Your task to perform on an android device: change text size in settings app Image 0: 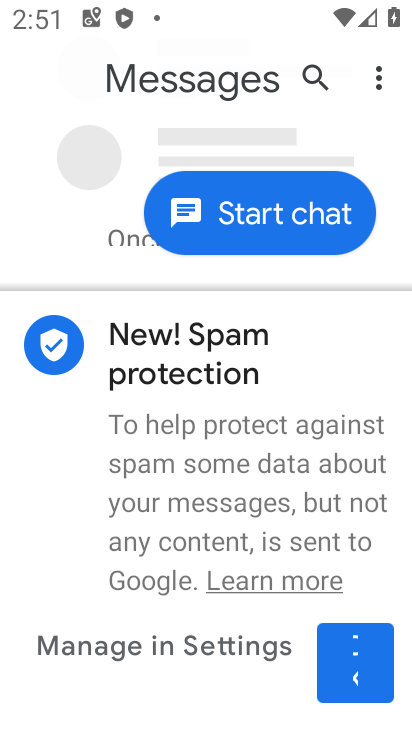
Step 0: press home button
Your task to perform on an android device: change text size in settings app Image 1: 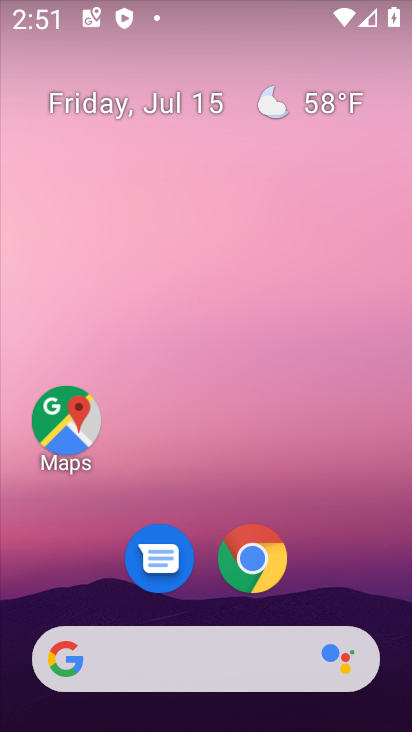
Step 1: drag from (371, 567) to (373, 70)
Your task to perform on an android device: change text size in settings app Image 2: 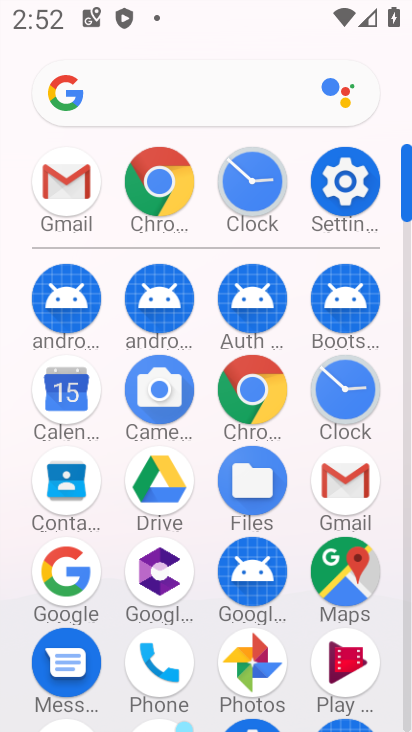
Step 2: click (351, 198)
Your task to perform on an android device: change text size in settings app Image 3: 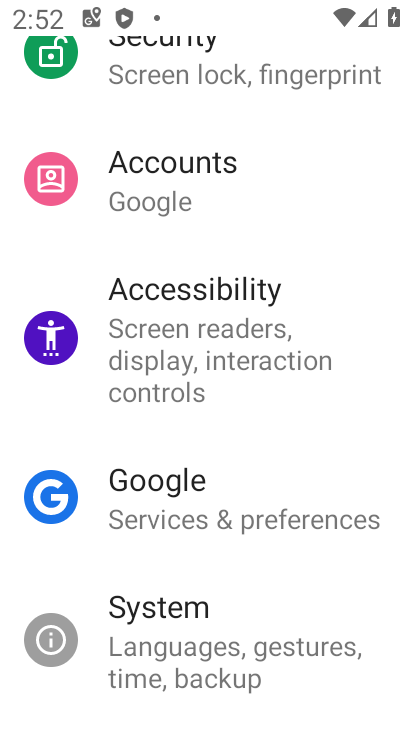
Step 3: drag from (351, 198) to (364, 246)
Your task to perform on an android device: change text size in settings app Image 4: 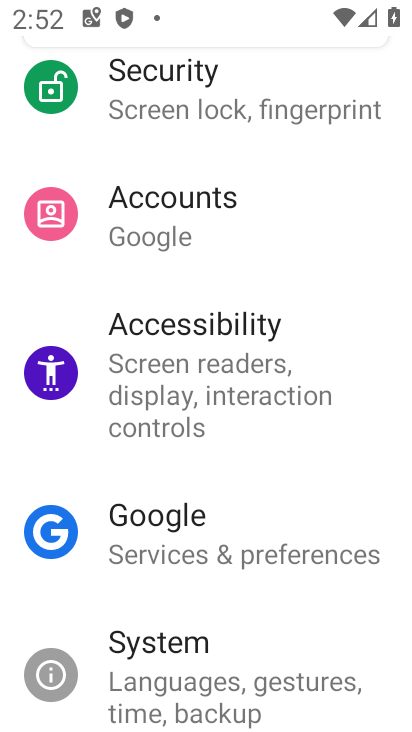
Step 4: drag from (370, 196) to (376, 274)
Your task to perform on an android device: change text size in settings app Image 5: 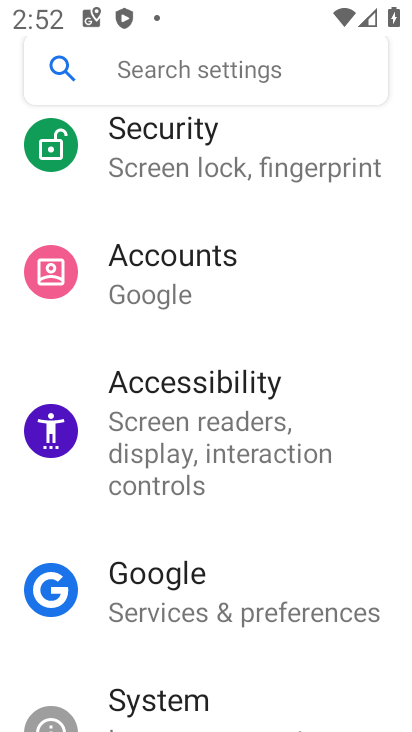
Step 5: drag from (359, 235) to (351, 314)
Your task to perform on an android device: change text size in settings app Image 6: 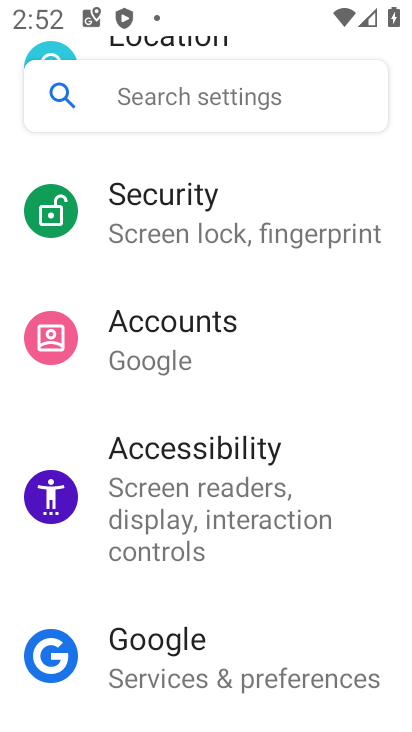
Step 6: drag from (355, 254) to (353, 342)
Your task to perform on an android device: change text size in settings app Image 7: 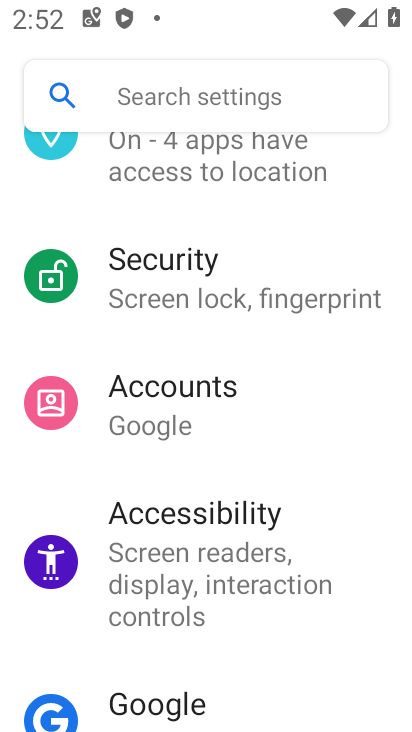
Step 7: drag from (352, 251) to (347, 366)
Your task to perform on an android device: change text size in settings app Image 8: 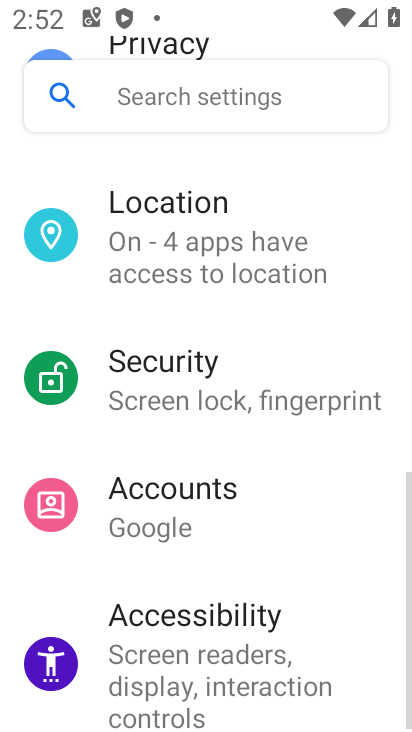
Step 8: drag from (357, 273) to (353, 333)
Your task to perform on an android device: change text size in settings app Image 9: 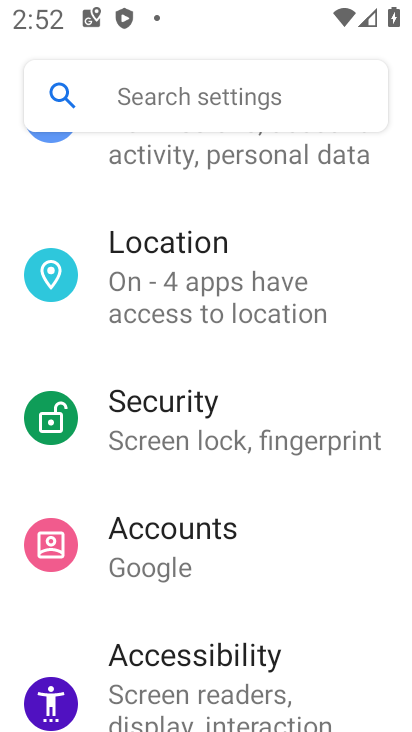
Step 9: drag from (351, 254) to (349, 350)
Your task to perform on an android device: change text size in settings app Image 10: 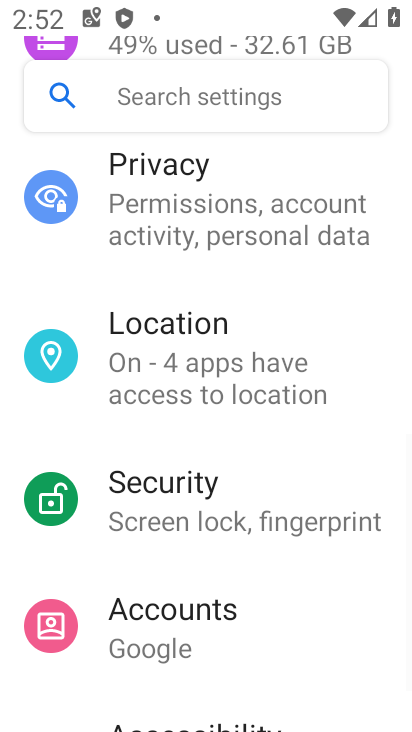
Step 10: drag from (353, 295) to (352, 368)
Your task to perform on an android device: change text size in settings app Image 11: 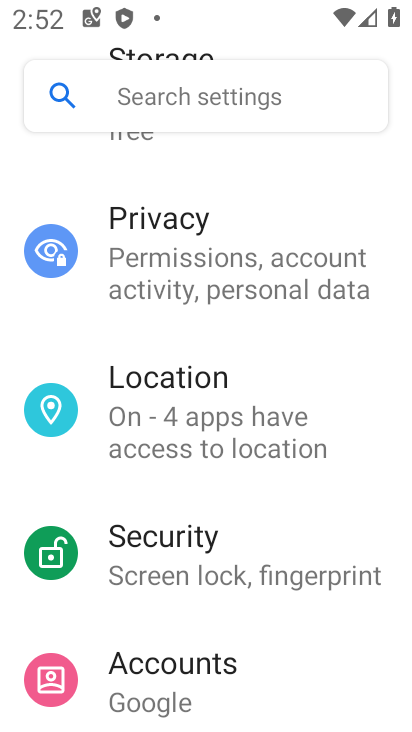
Step 11: drag from (347, 252) to (345, 353)
Your task to perform on an android device: change text size in settings app Image 12: 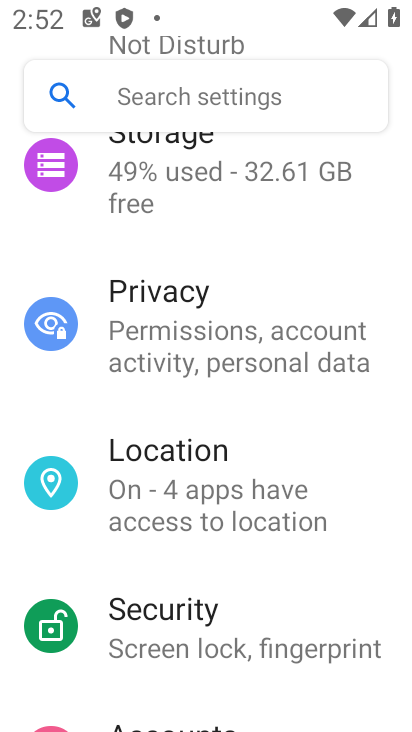
Step 12: drag from (343, 255) to (343, 356)
Your task to perform on an android device: change text size in settings app Image 13: 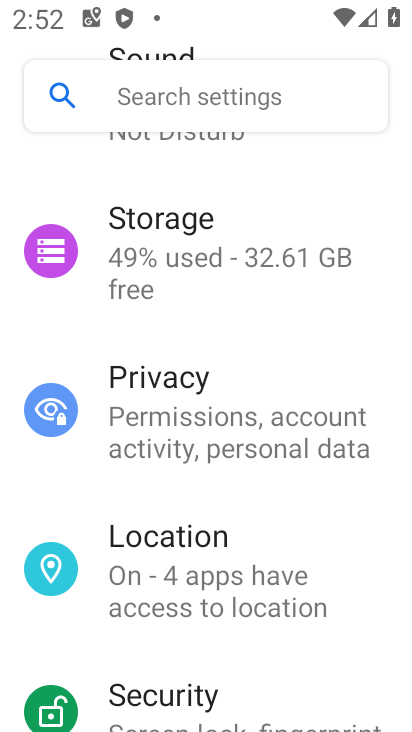
Step 13: drag from (360, 219) to (354, 340)
Your task to perform on an android device: change text size in settings app Image 14: 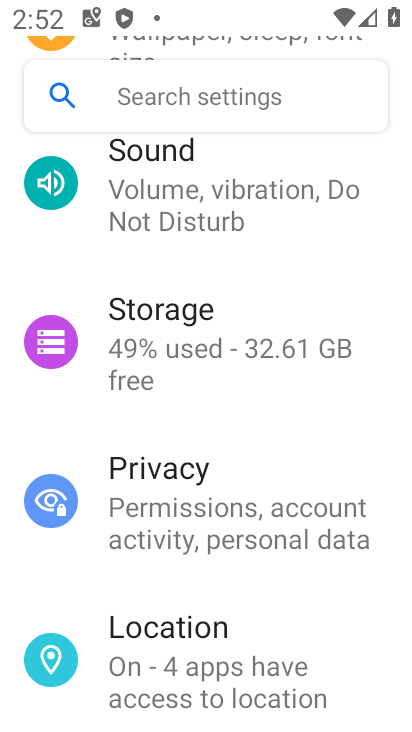
Step 14: drag from (356, 247) to (356, 322)
Your task to perform on an android device: change text size in settings app Image 15: 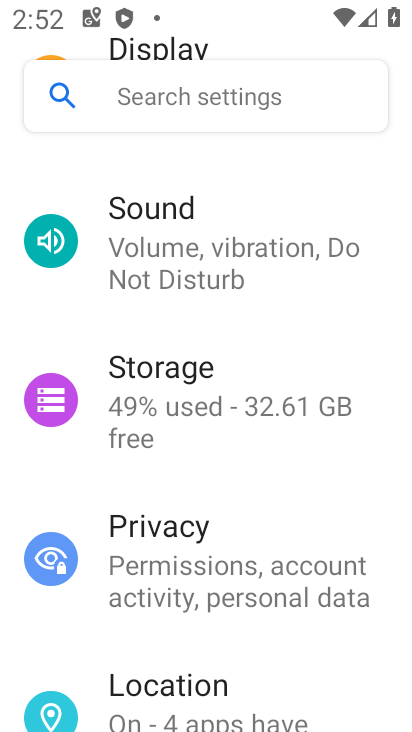
Step 15: drag from (360, 232) to (358, 334)
Your task to perform on an android device: change text size in settings app Image 16: 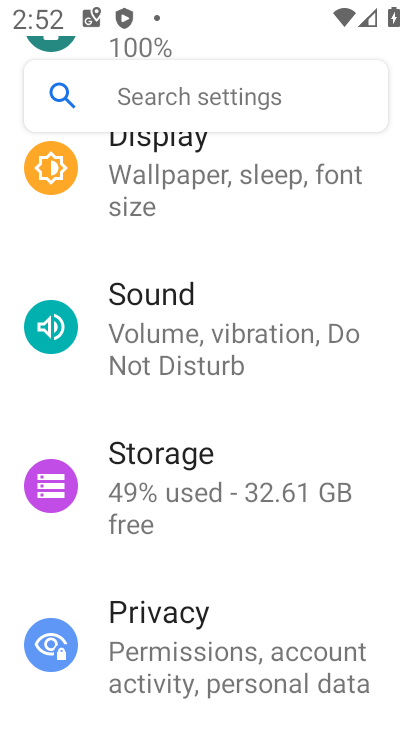
Step 16: drag from (354, 259) to (348, 358)
Your task to perform on an android device: change text size in settings app Image 17: 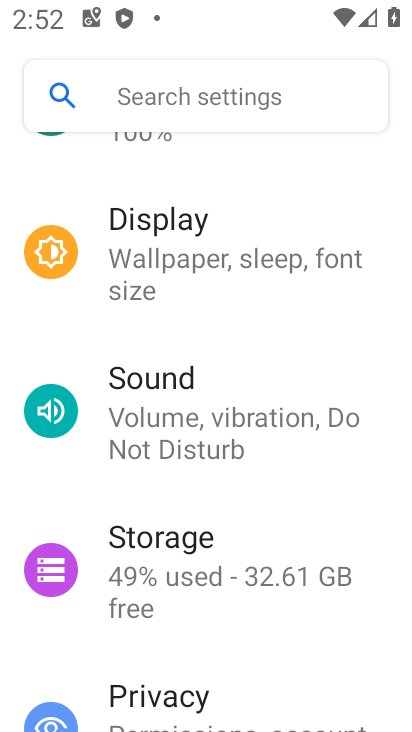
Step 17: drag from (348, 297) to (348, 366)
Your task to perform on an android device: change text size in settings app Image 18: 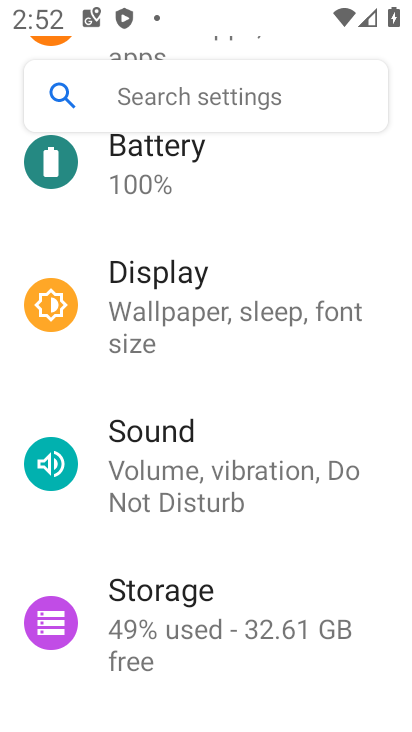
Step 18: drag from (347, 255) to (339, 408)
Your task to perform on an android device: change text size in settings app Image 19: 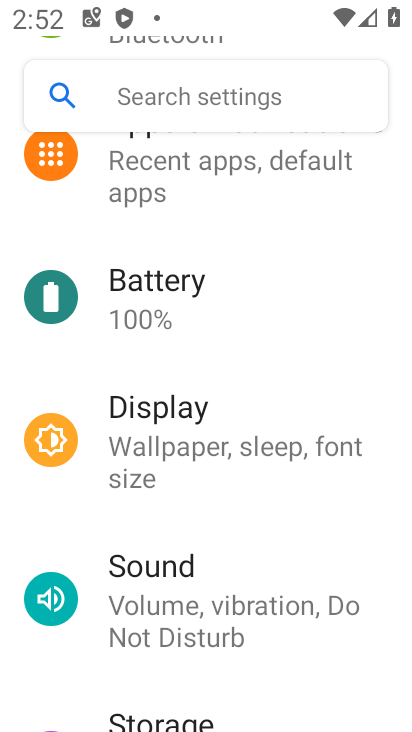
Step 19: click (294, 442)
Your task to perform on an android device: change text size in settings app Image 20: 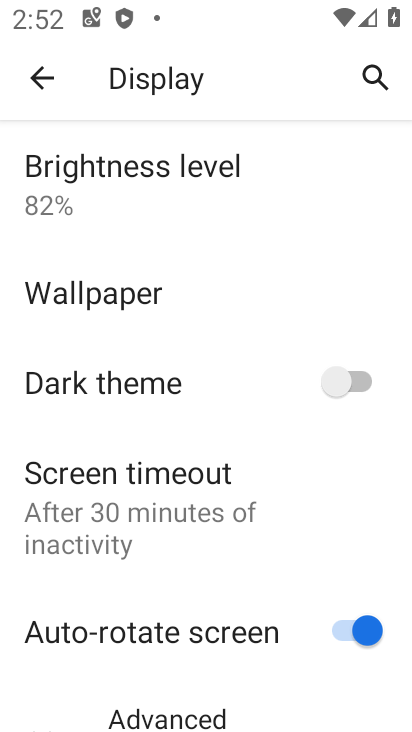
Step 20: drag from (281, 519) to (287, 376)
Your task to perform on an android device: change text size in settings app Image 21: 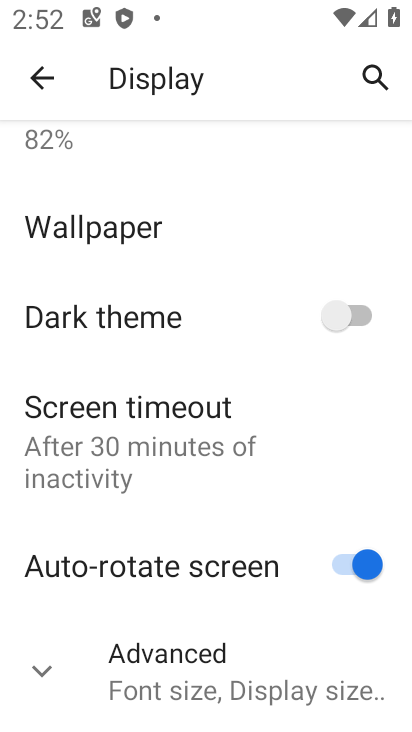
Step 21: click (238, 665)
Your task to perform on an android device: change text size in settings app Image 22: 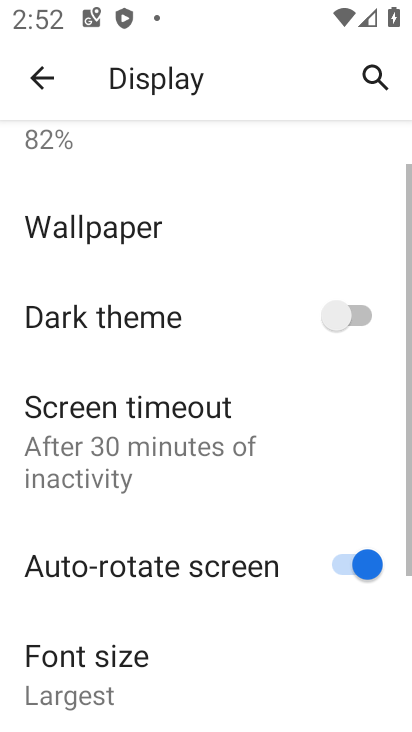
Step 22: drag from (259, 618) to (280, 473)
Your task to perform on an android device: change text size in settings app Image 23: 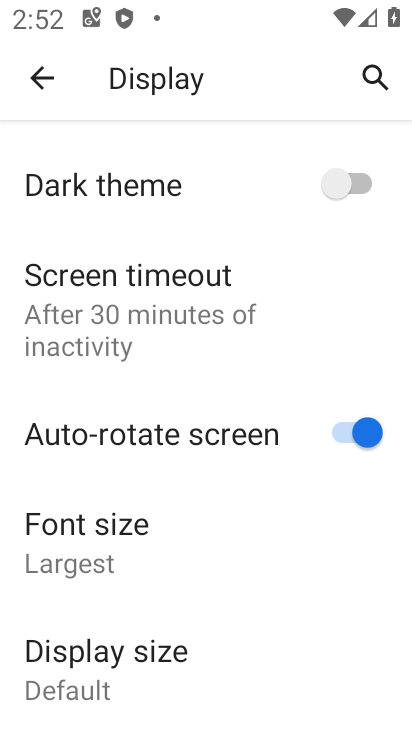
Step 23: click (230, 541)
Your task to perform on an android device: change text size in settings app Image 24: 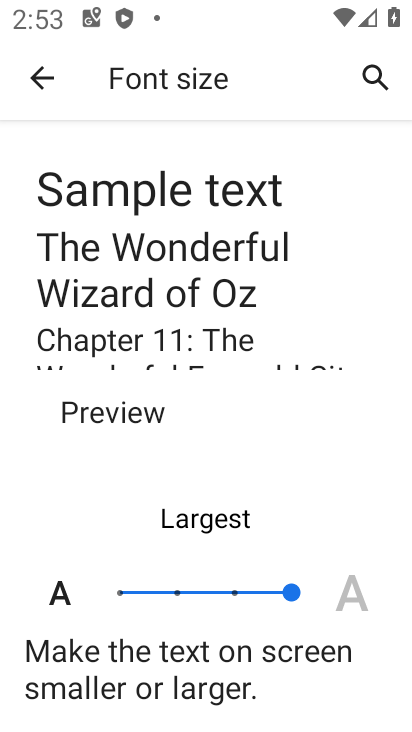
Step 24: click (238, 591)
Your task to perform on an android device: change text size in settings app Image 25: 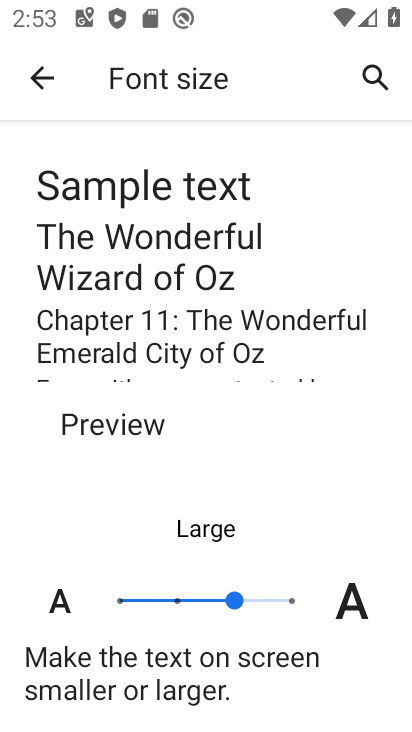
Step 25: task complete